Your task to perform on an android device: change your default location settings in chrome Image 0: 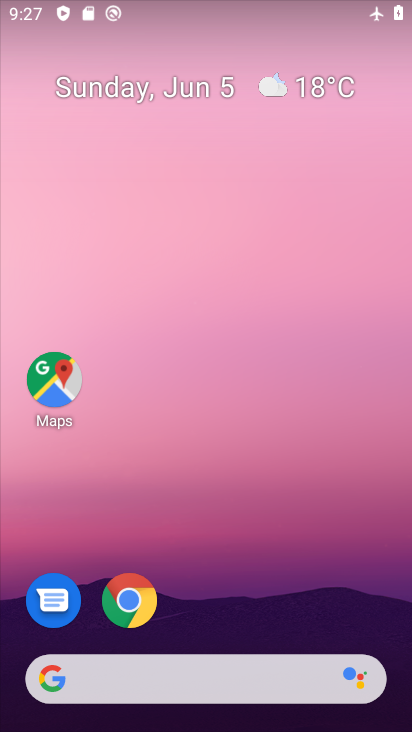
Step 0: click (132, 599)
Your task to perform on an android device: change your default location settings in chrome Image 1: 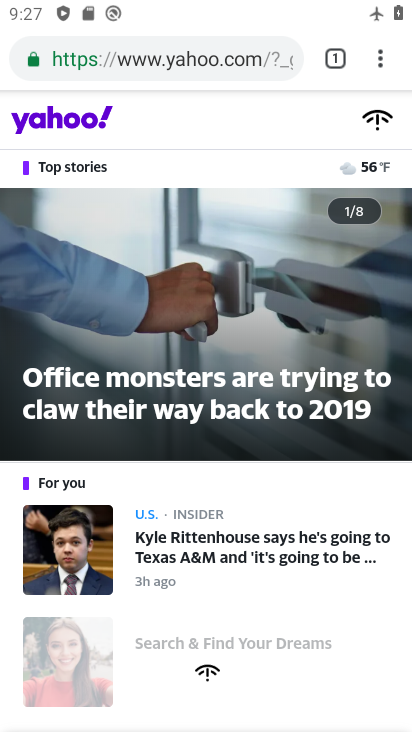
Step 1: click (383, 58)
Your task to perform on an android device: change your default location settings in chrome Image 2: 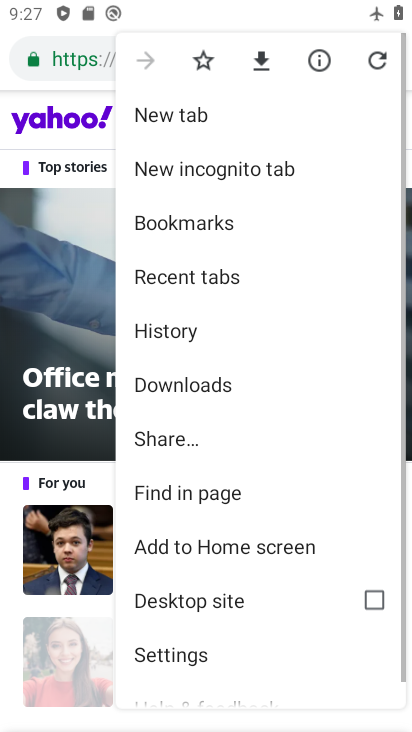
Step 2: drag from (249, 532) to (357, 93)
Your task to perform on an android device: change your default location settings in chrome Image 3: 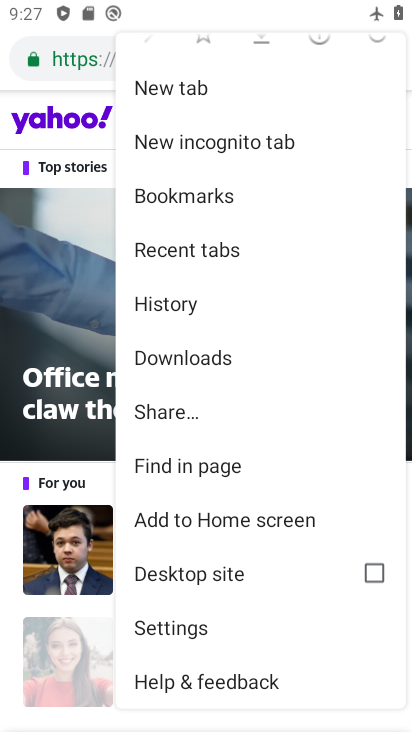
Step 3: click (202, 637)
Your task to perform on an android device: change your default location settings in chrome Image 4: 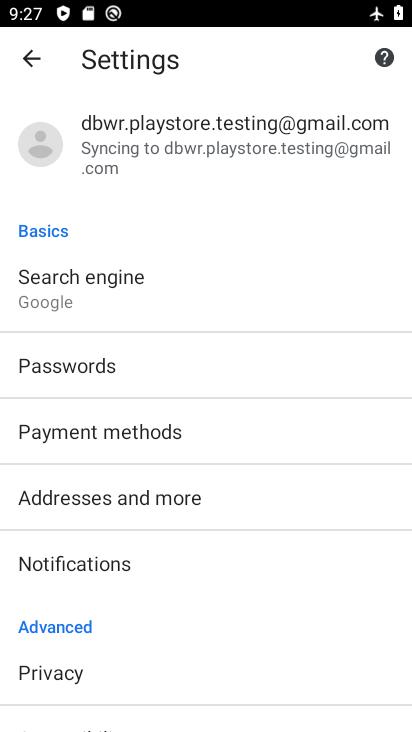
Step 4: click (83, 284)
Your task to perform on an android device: change your default location settings in chrome Image 5: 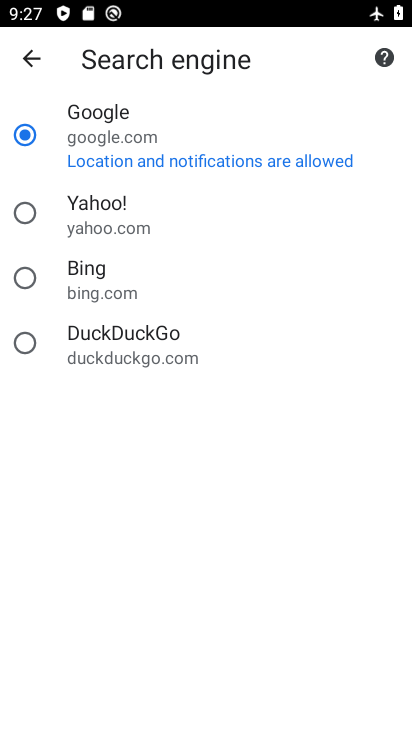
Step 5: click (29, 67)
Your task to perform on an android device: change your default location settings in chrome Image 6: 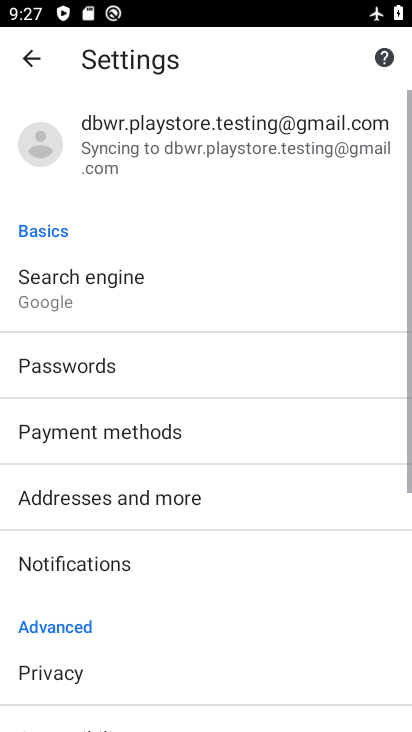
Step 6: drag from (184, 622) to (214, 180)
Your task to perform on an android device: change your default location settings in chrome Image 7: 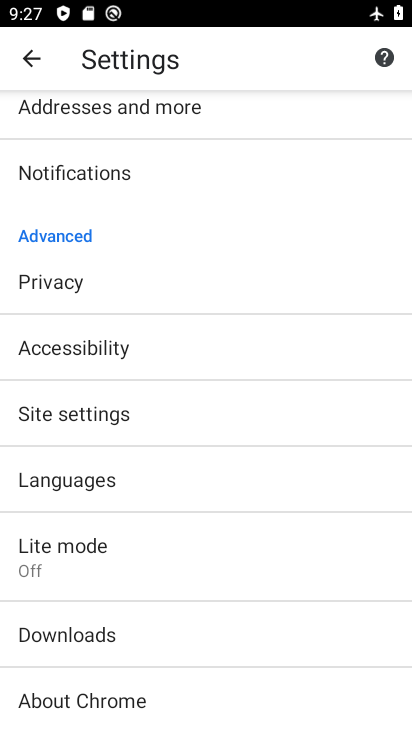
Step 7: click (123, 423)
Your task to perform on an android device: change your default location settings in chrome Image 8: 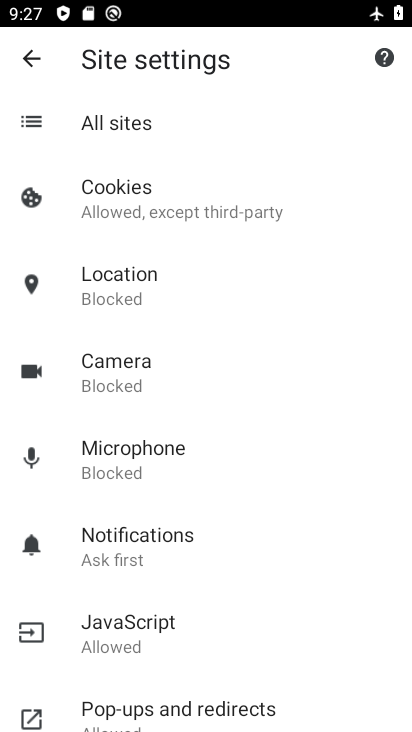
Step 8: click (132, 282)
Your task to perform on an android device: change your default location settings in chrome Image 9: 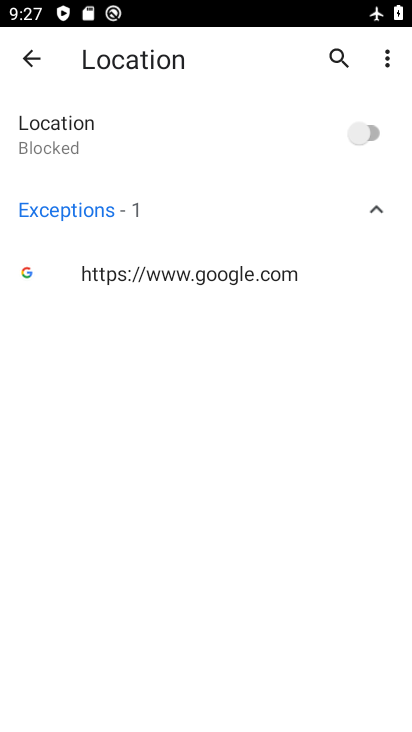
Step 9: click (358, 127)
Your task to perform on an android device: change your default location settings in chrome Image 10: 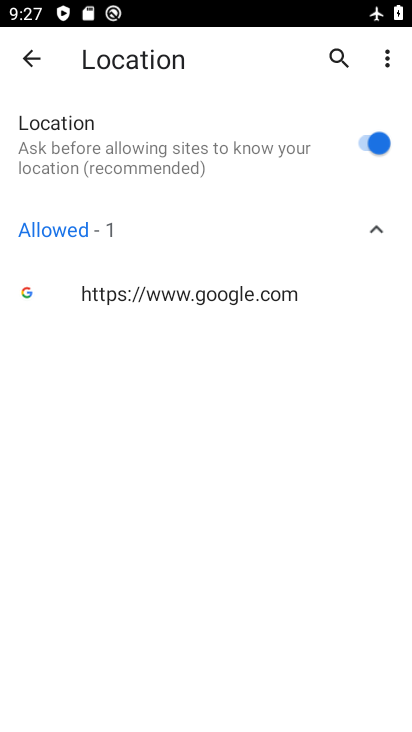
Step 10: task complete